Your task to perform on an android device: Go to battery settings Image 0: 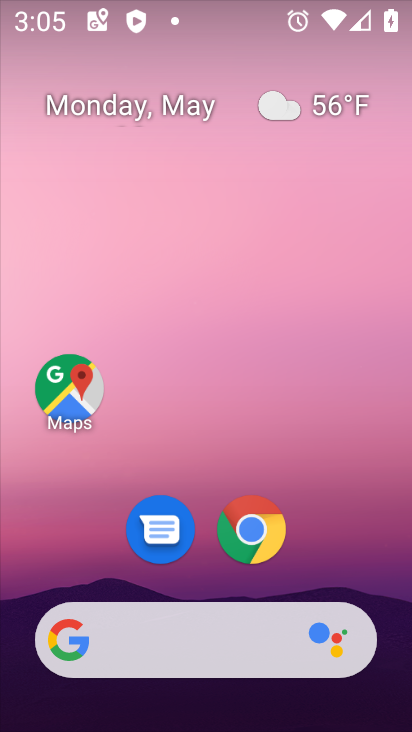
Step 0: drag from (305, 580) to (307, 41)
Your task to perform on an android device: Go to battery settings Image 1: 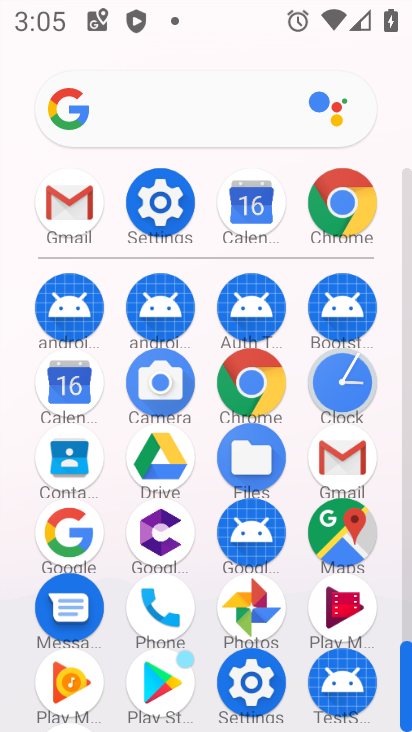
Step 1: click (163, 206)
Your task to perform on an android device: Go to battery settings Image 2: 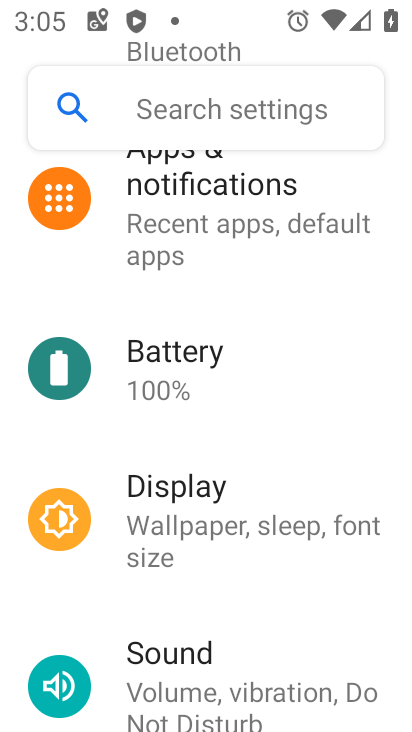
Step 2: click (201, 359)
Your task to perform on an android device: Go to battery settings Image 3: 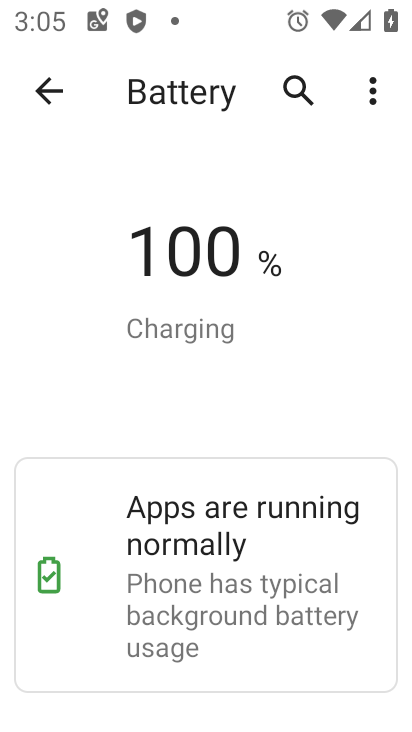
Step 3: task complete